Your task to perform on an android device: Add "razer nari" to the cart on target, then select checkout. Image 0: 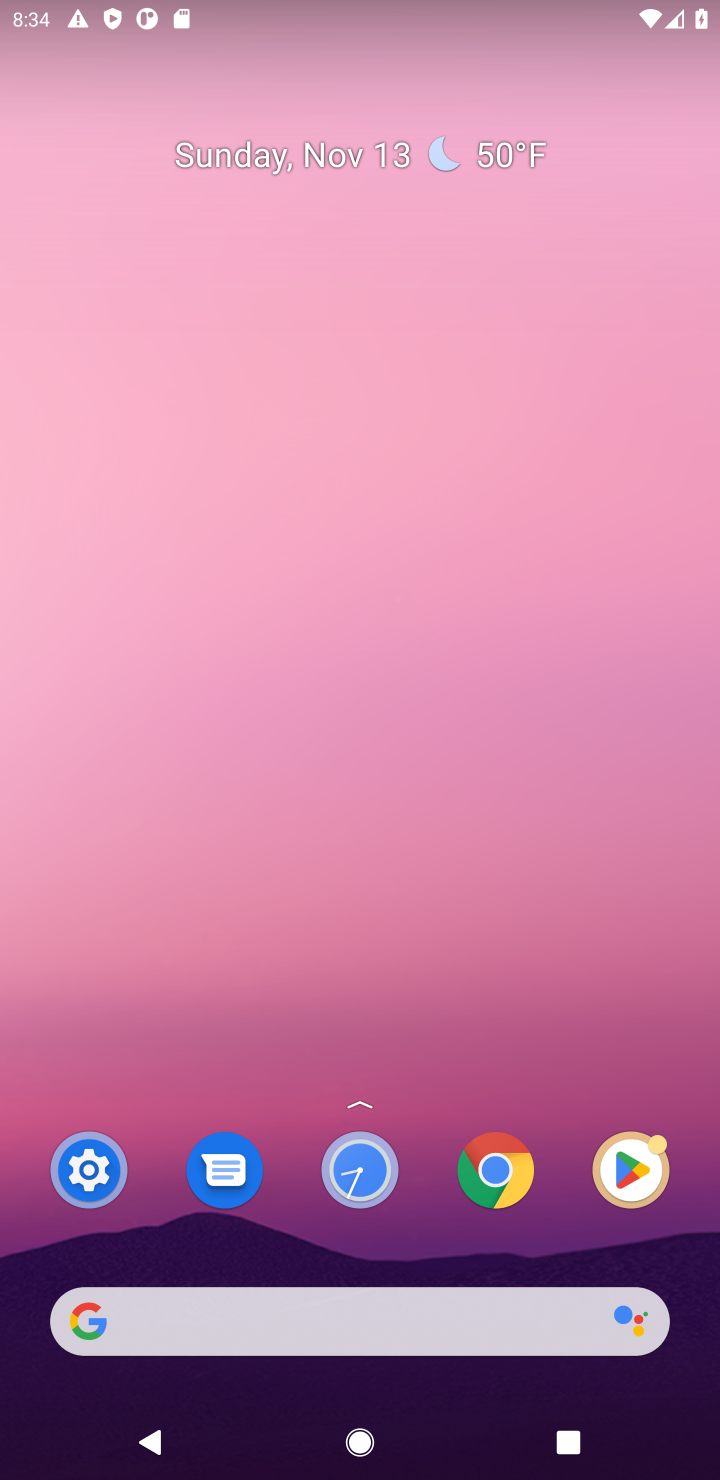
Step 0: click (338, 1343)
Your task to perform on an android device: Add "razer nari" to the cart on target, then select checkout. Image 1: 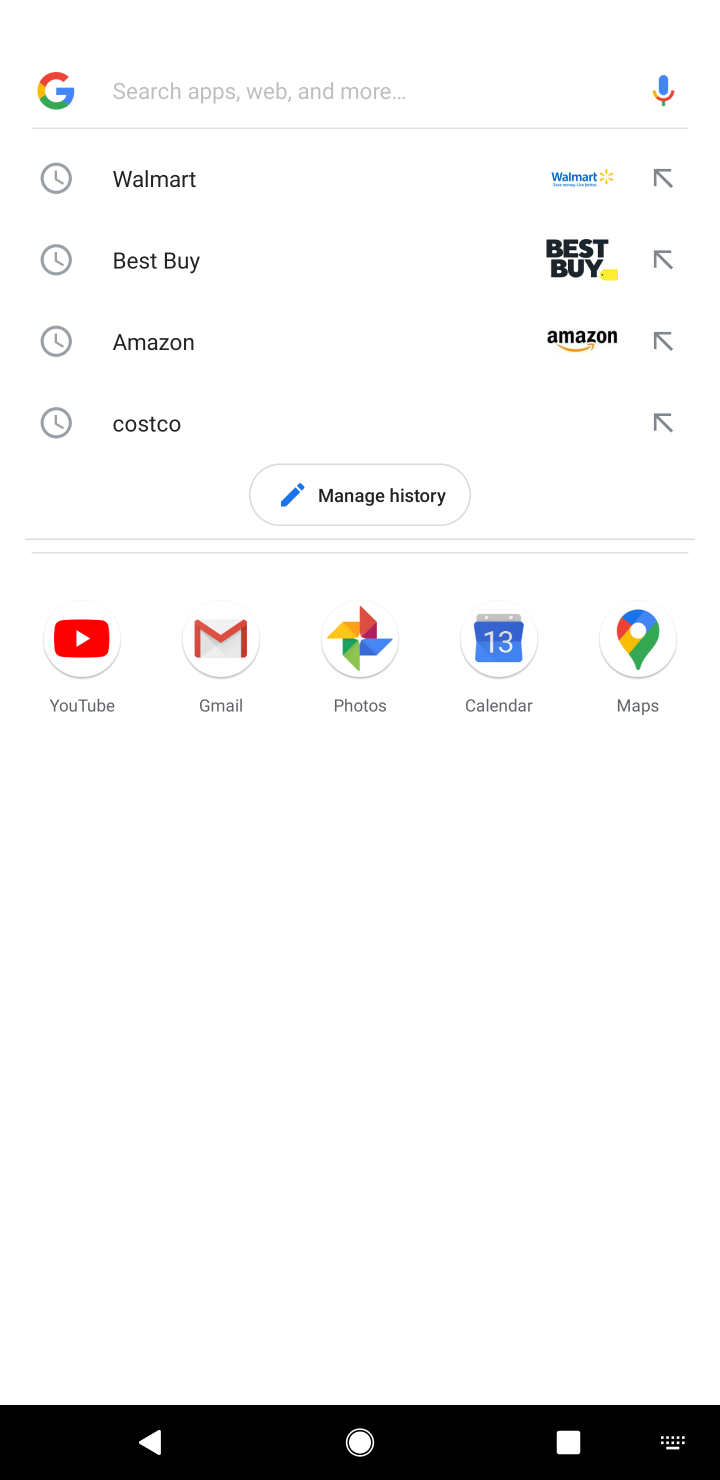
Step 1: type "razere nari"
Your task to perform on an android device: Add "razer nari" to the cart on target, then select checkout. Image 2: 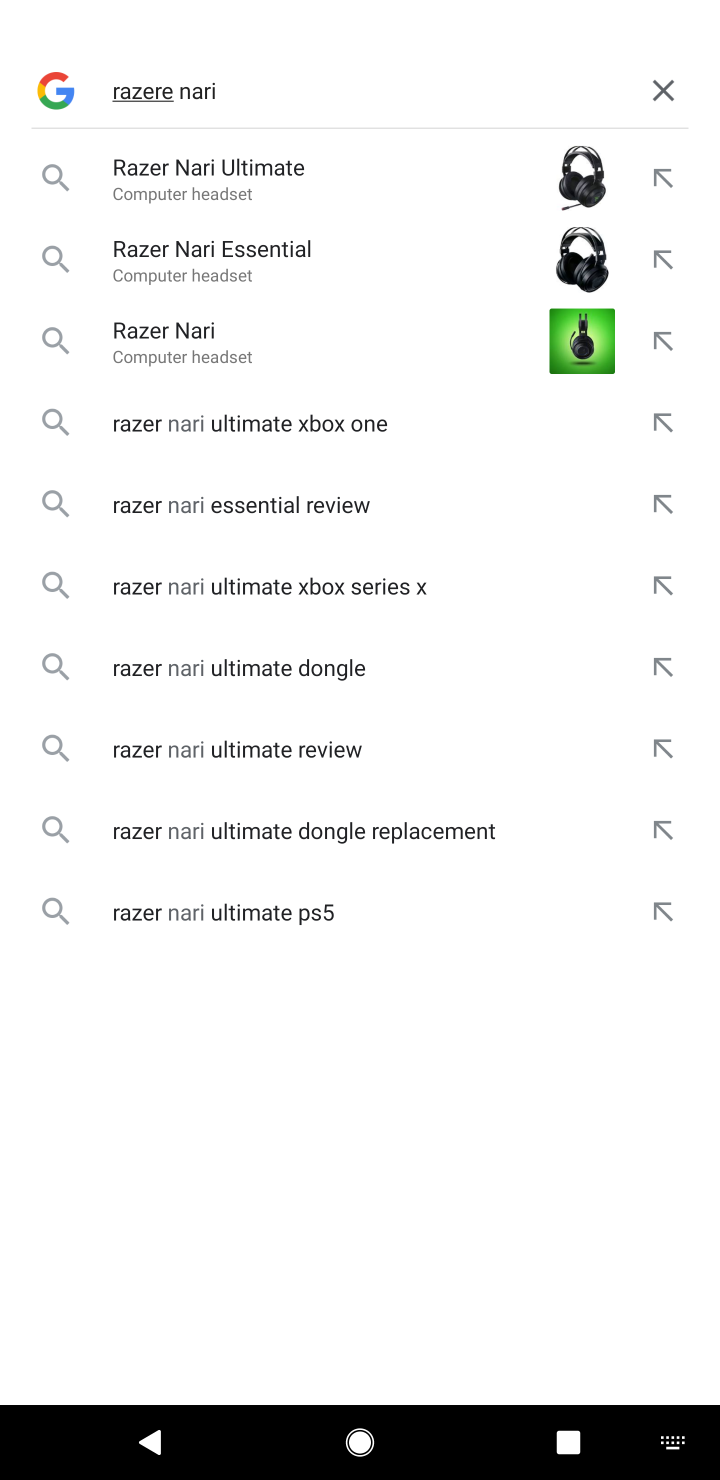
Step 2: click (273, 377)
Your task to perform on an android device: Add "razer nari" to the cart on target, then select checkout. Image 3: 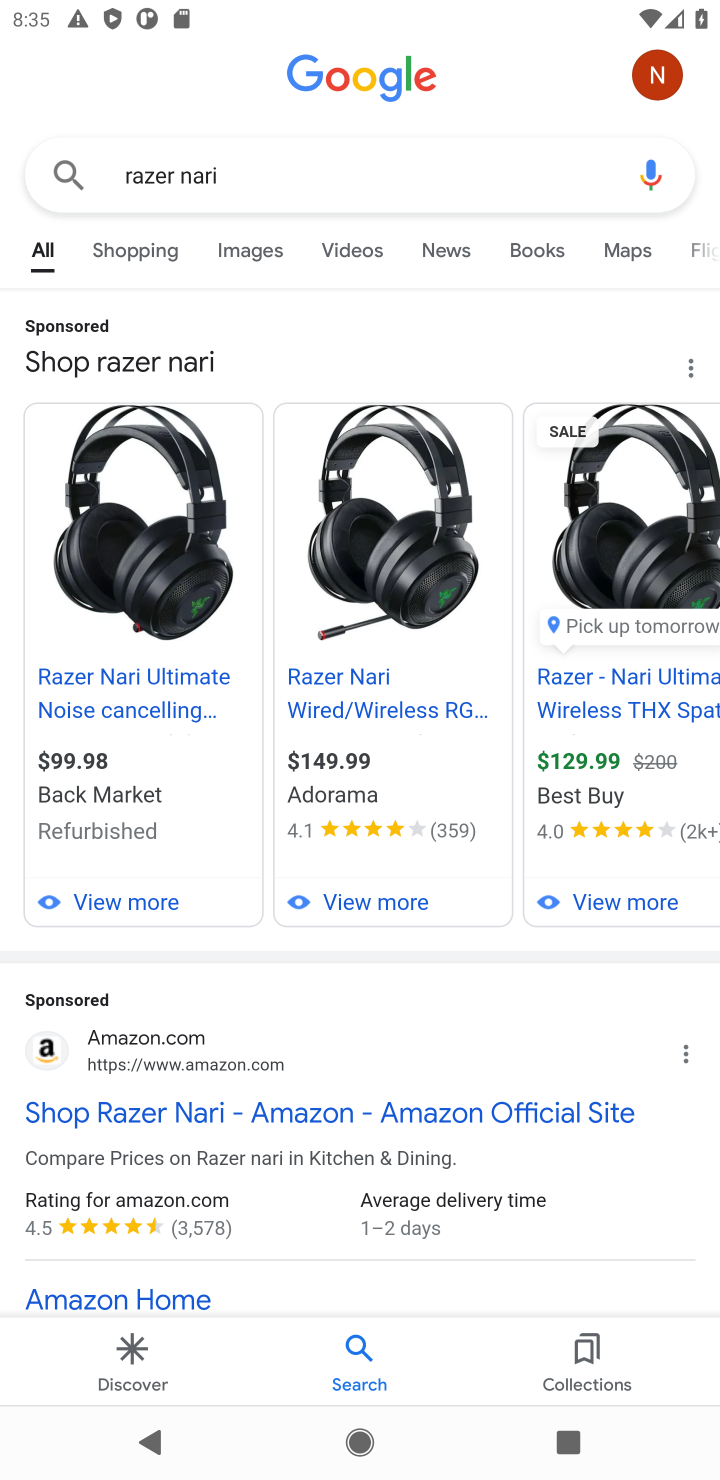
Step 3: task complete